Your task to perform on an android device: Open accessibility settings Image 0: 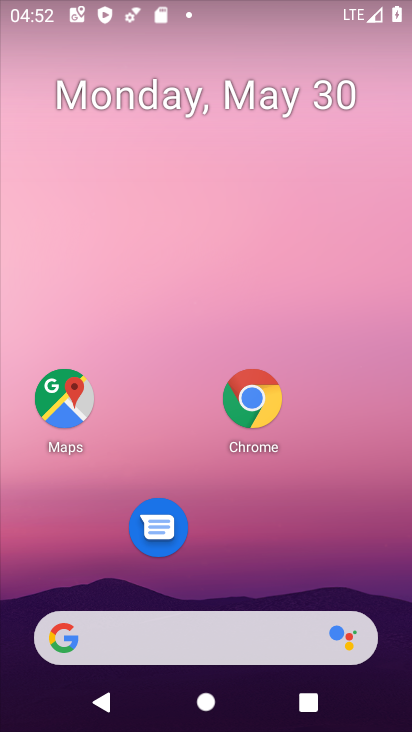
Step 0: drag from (242, 724) to (239, 71)
Your task to perform on an android device: Open accessibility settings Image 1: 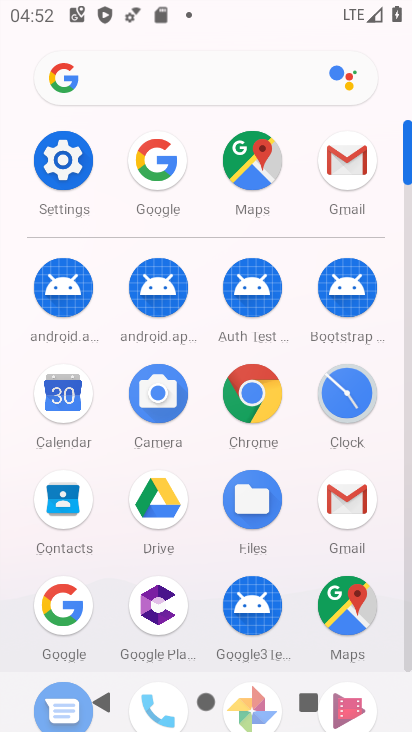
Step 1: click (60, 163)
Your task to perform on an android device: Open accessibility settings Image 2: 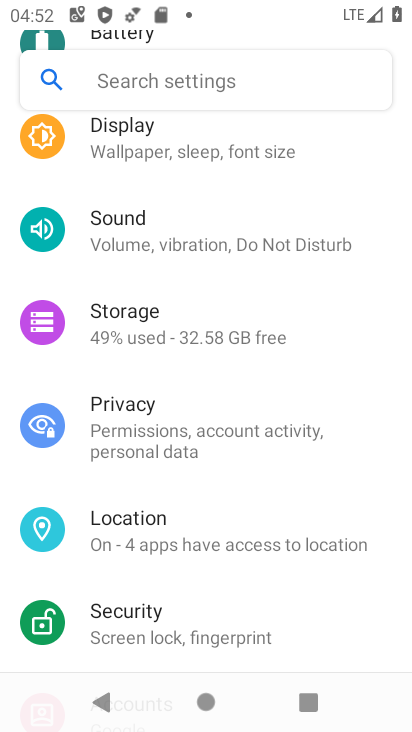
Step 2: drag from (290, 622) to (279, 175)
Your task to perform on an android device: Open accessibility settings Image 3: 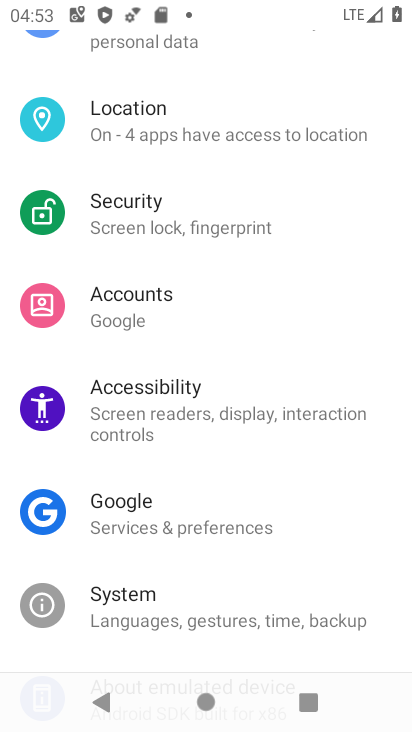
Step 3: click (116, 394)
Your task to perform on an android device: Open accessibility settings Image 4: 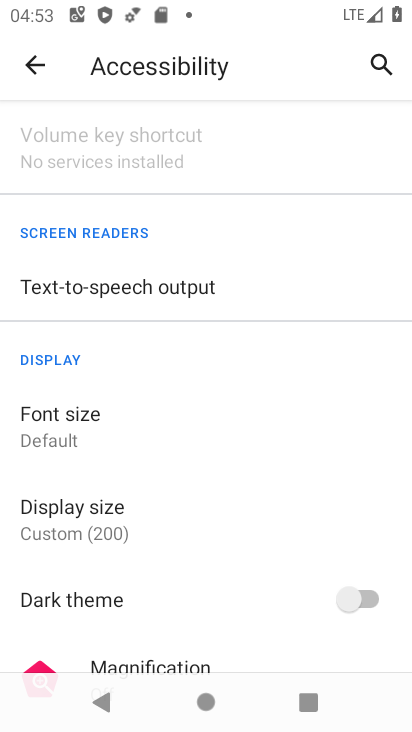
Step 4: task complete